Your task to perform on an android device: toggle data saver in the chrome app Image 0: 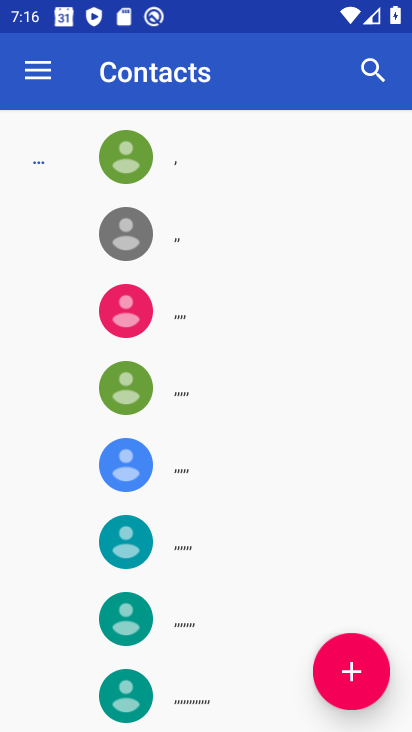
Step 0: press home button
Your task to perform on an android device: toggle data saver in the chrome app Image 1: 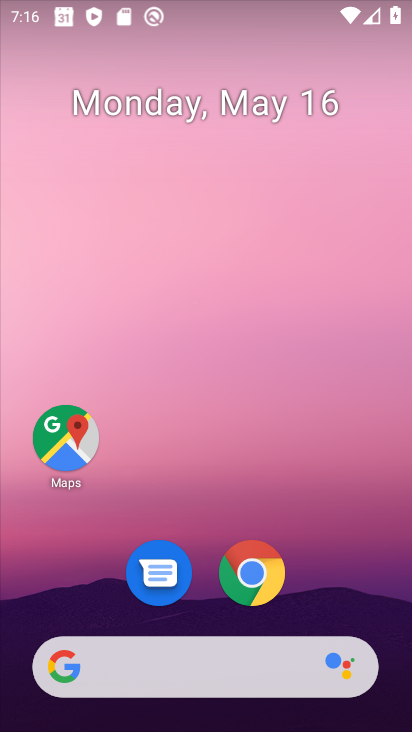
Step 1: click (254, 567)
Your task to perform on an android device: toggle data saver in the chrome app Image 2: 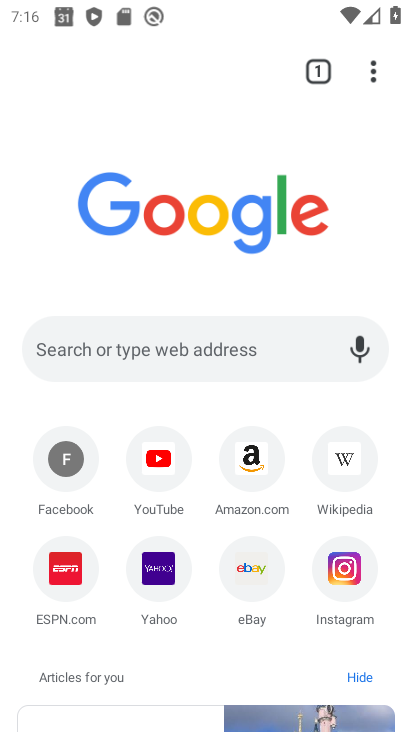
Step 2: click (381, 65)
Your task to perform on an android device: toggle data saver in the chrome app Image 3: 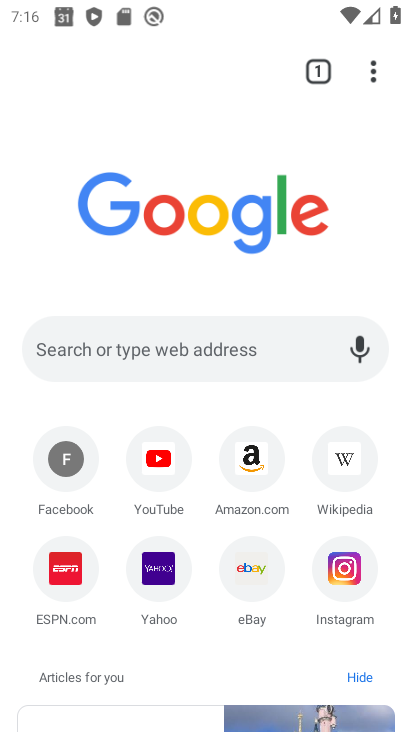
Step 3: click (381, 64)
Your task to perform on an android device: toggle data saver in the chrome app Image 4: 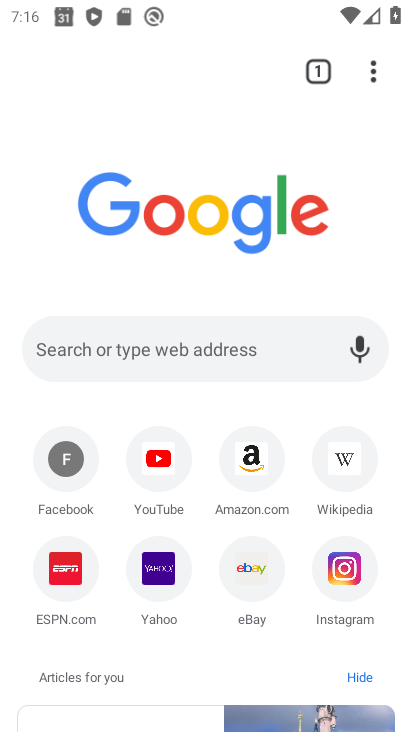
Step 4: drag from (381, 64) to (128, 596)
Your task to perform on an android device: toggle data saver in the chrome app Image 5: 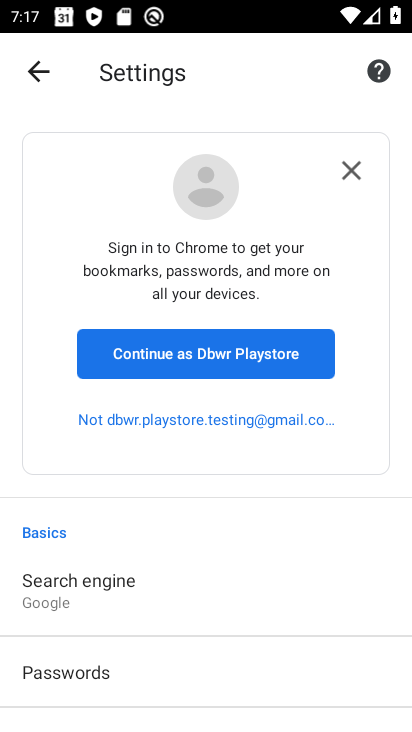
Step 5: drag from (145, 641) to (43, 281)
Your task to perform on an android device: toggle data saver in the chrome app Image 6: 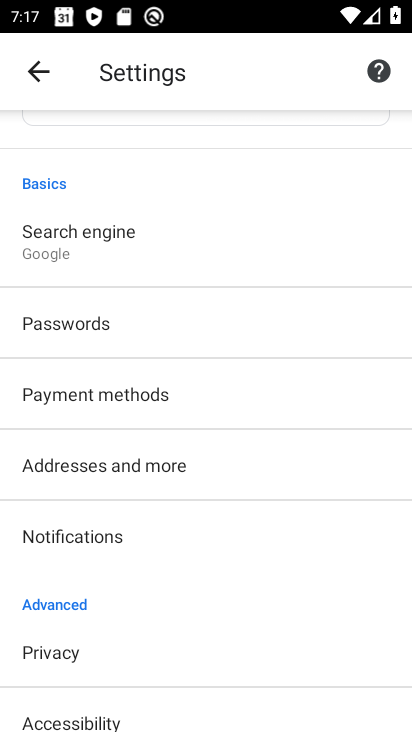
Step 6: drag from (82, 598) to (142, 225)
Your task to perform on an android device: toggle data saver in the chrome app Image 7: 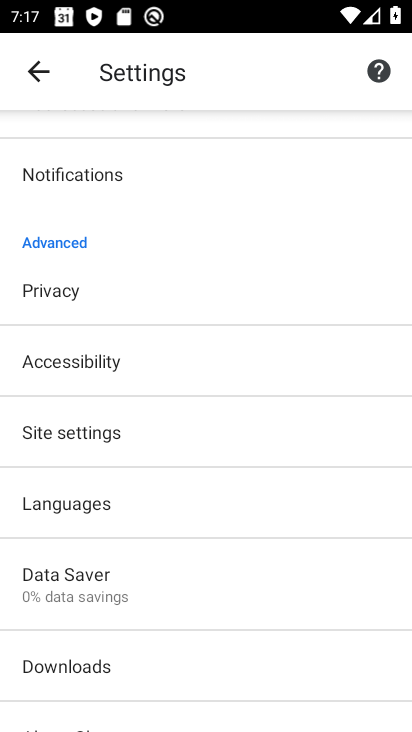
Step 7: click (82, 582)
Your task to perform on an android device: toggle data saver in the chrome app Image 8: 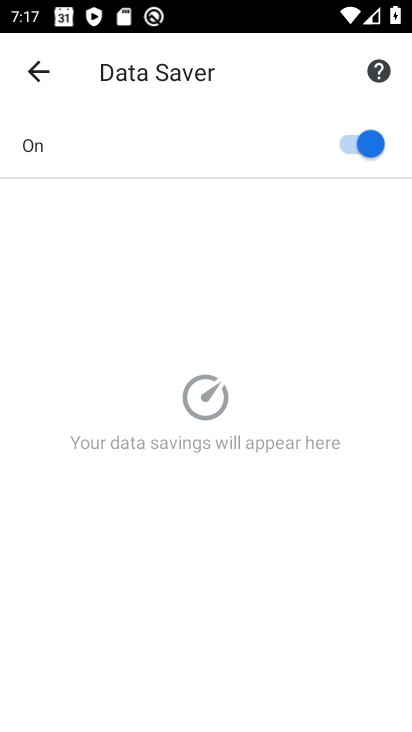
Step 8: task complete